Your task to perform on an android device: open app "Messenger Lite" (install if not already installed), go to login, and select forgot password Image 0: 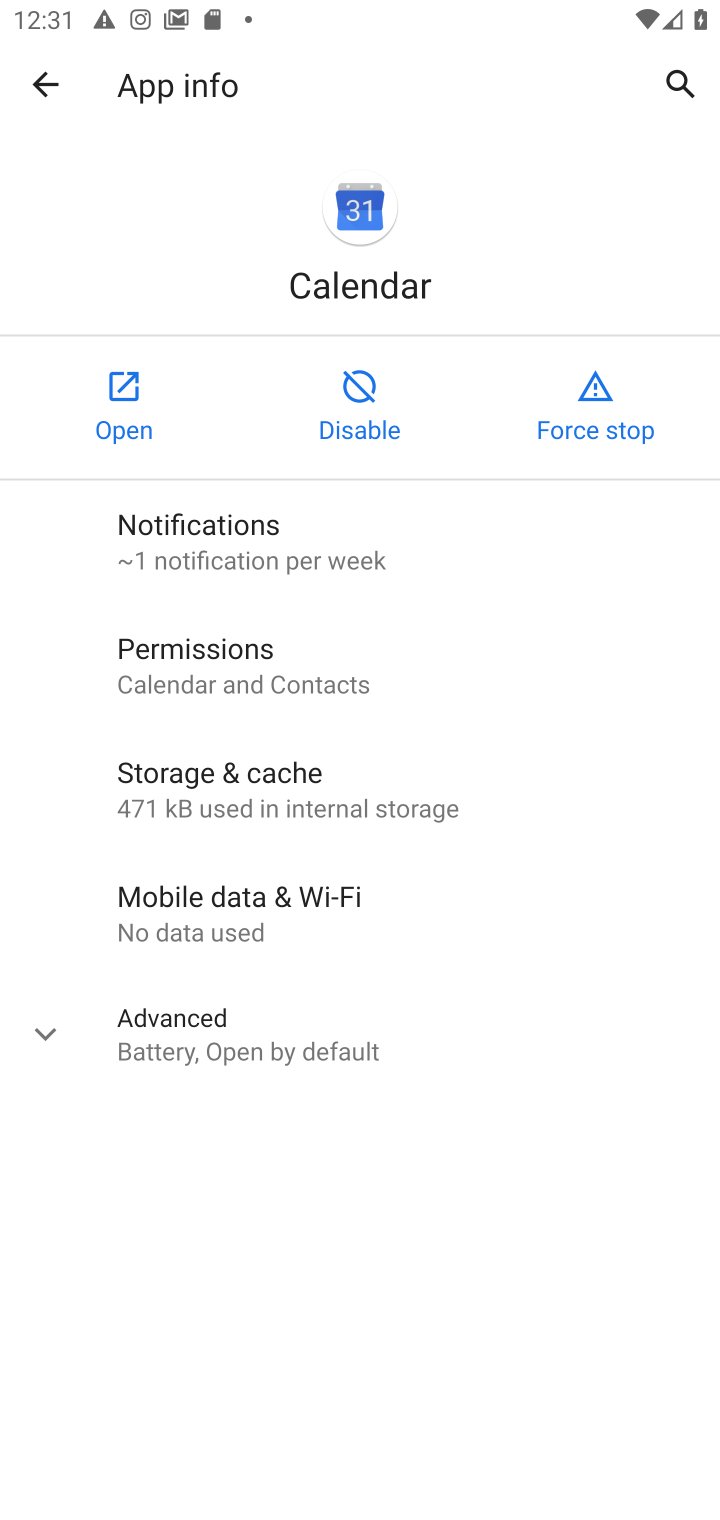
Step 0: press home button
Your task to perform on an android device: open app "Messenger Lite" (install if not already installed), go to login, and select forgot password Image 1: 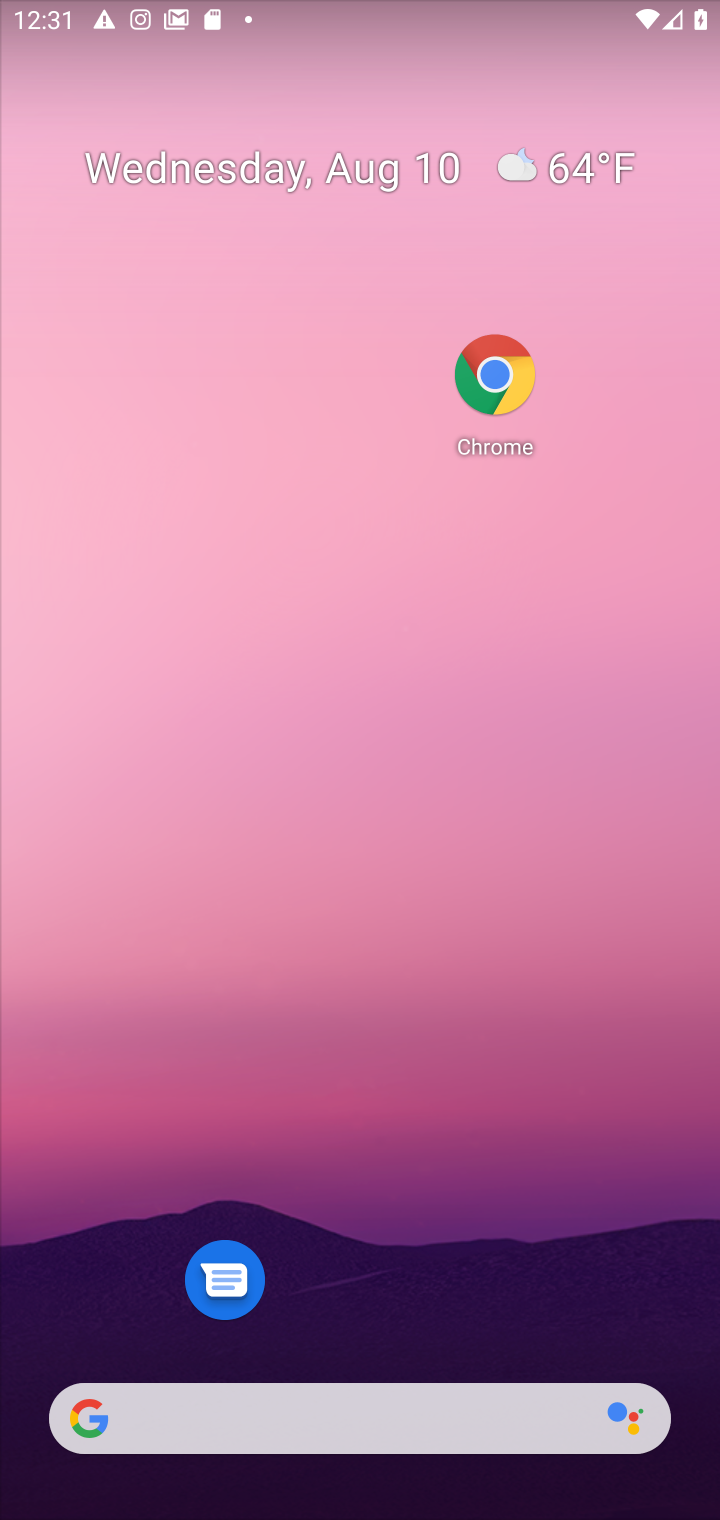
Step 1: drag from (365, 1326) to (167, 221)
Your task to perform on an android device: open app "Messenger Lite" (install if not already installed), go to login, and select forgot password Image 2: 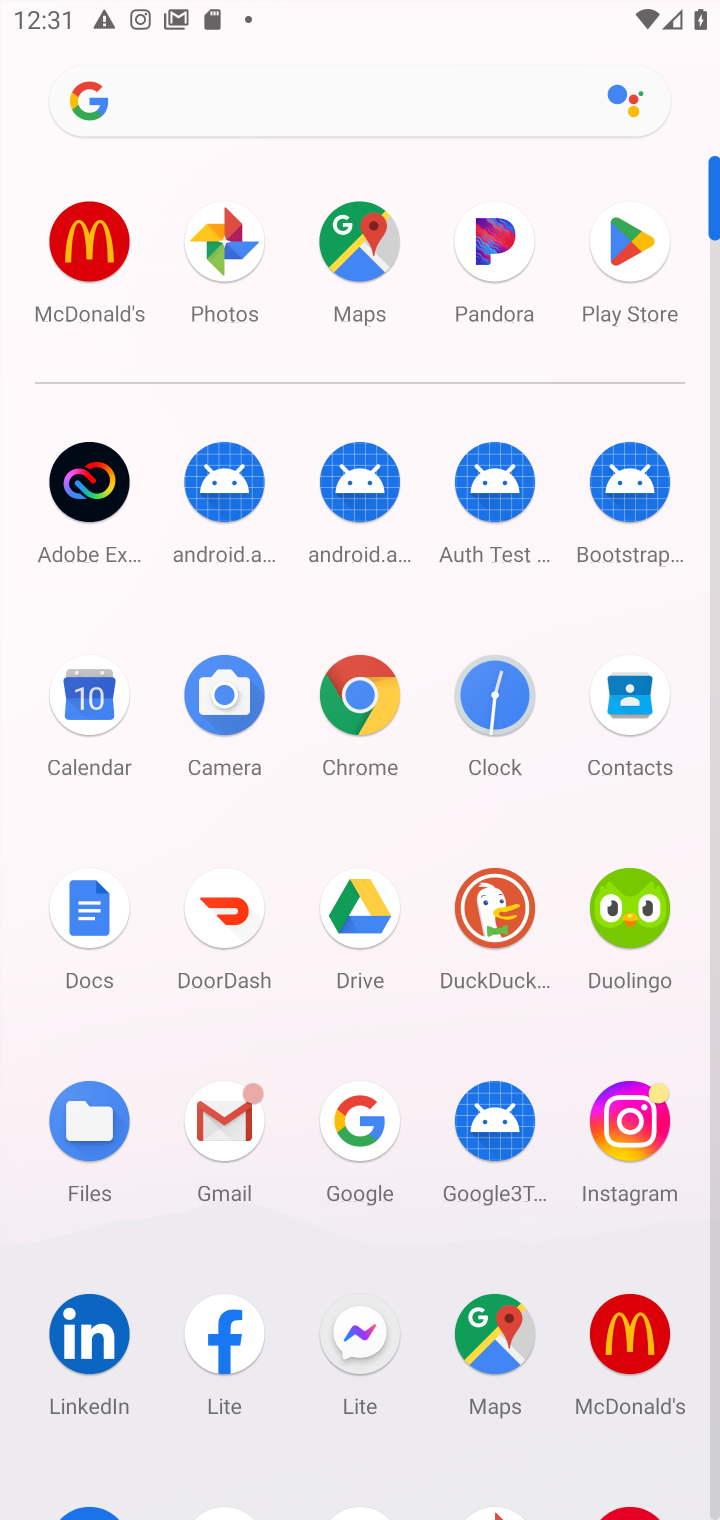
Step 2: click (347, 1352)
Your task to perform on an android device: open app "Messenger Lite" (install if not already installed), go to login, and select forgot password Image 3: 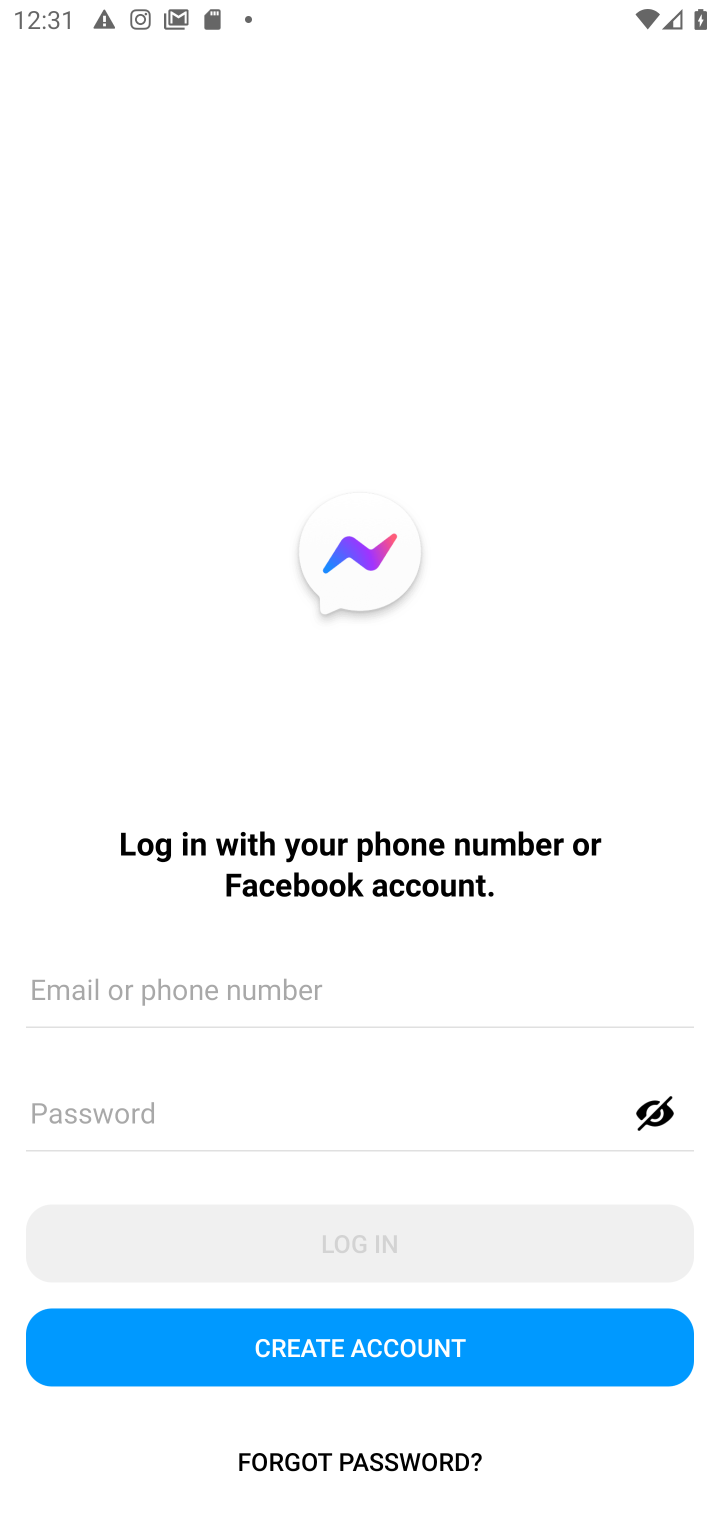
Step 3: click (374, 1457)
Your task to perform on an android device: open app "Messenger Lite" (install if not already installed), go to login, and select forgot password Image 4: 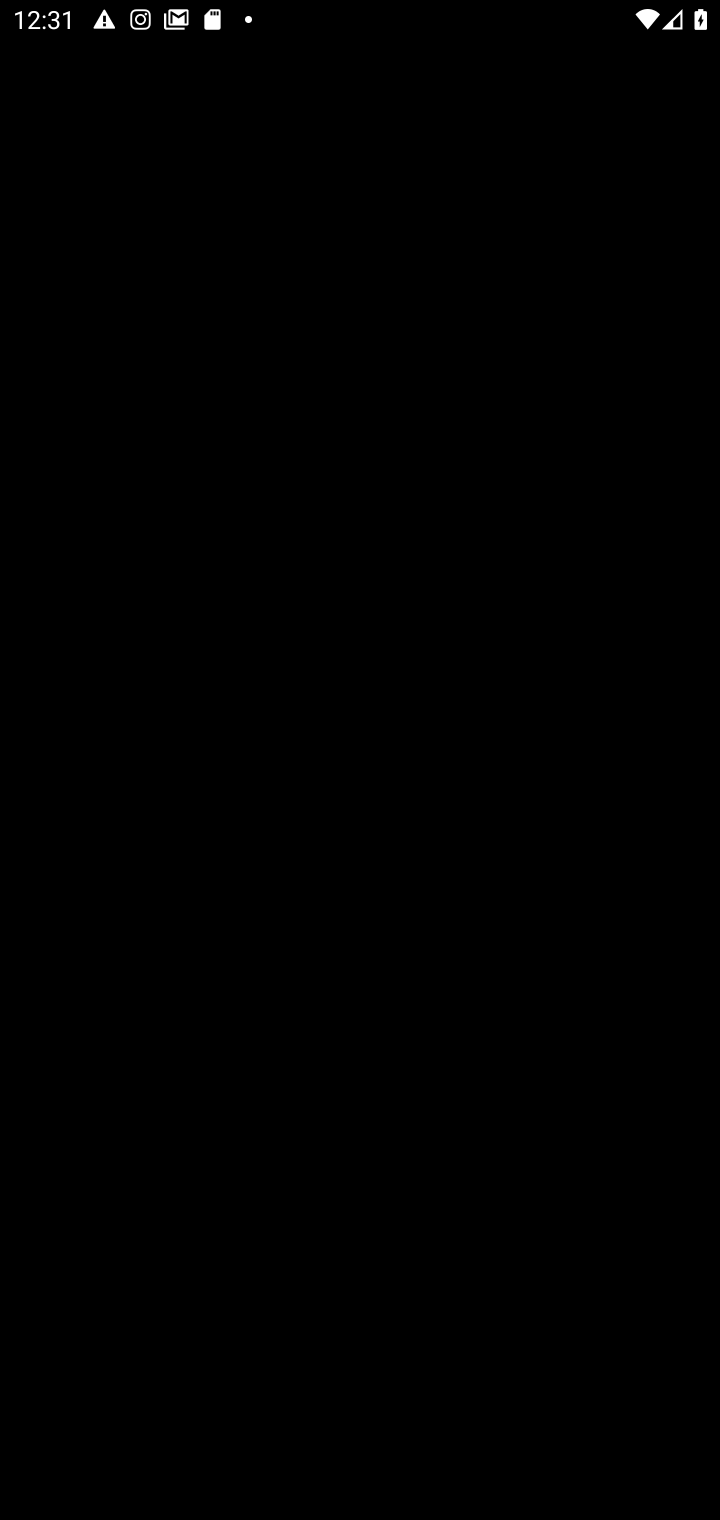
Step 4: task complete